Your task to perform on an android device: Open the web browser Image 0: 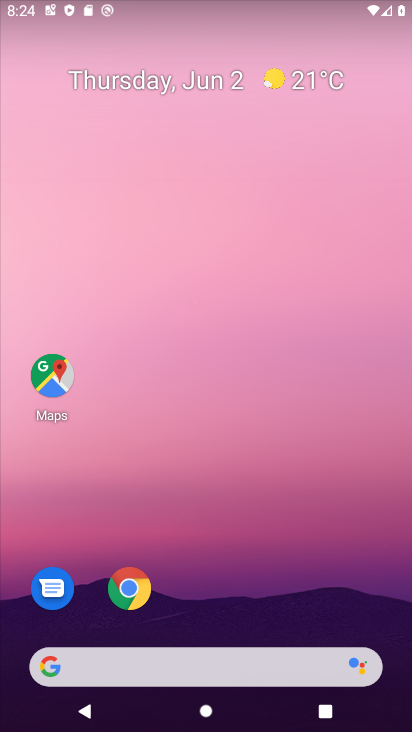
Step 0: click (148, 592)
Your task to perform on an android device: Open the web browser Image 1: 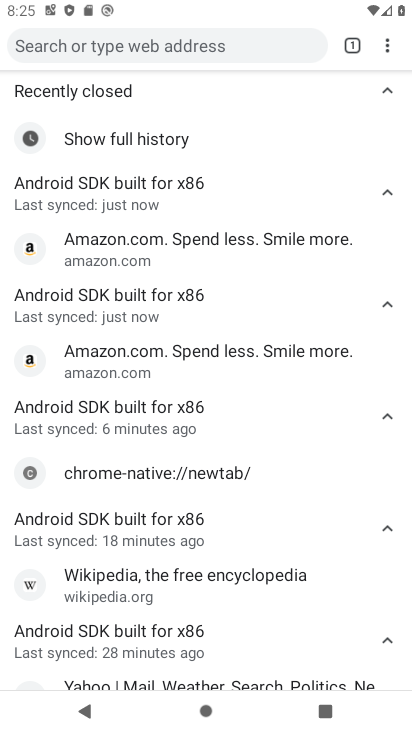
Step 1: task complete